Your task to perform on an android device: toggle improve location accuracy Image 0: 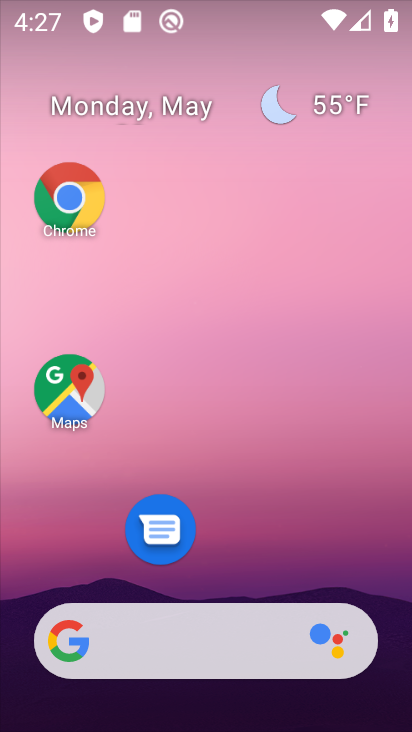
Step 0: drag from (196, 662) to (170, 15)
Your task to perform on an android device: toggle improve location accuracy Image 1: 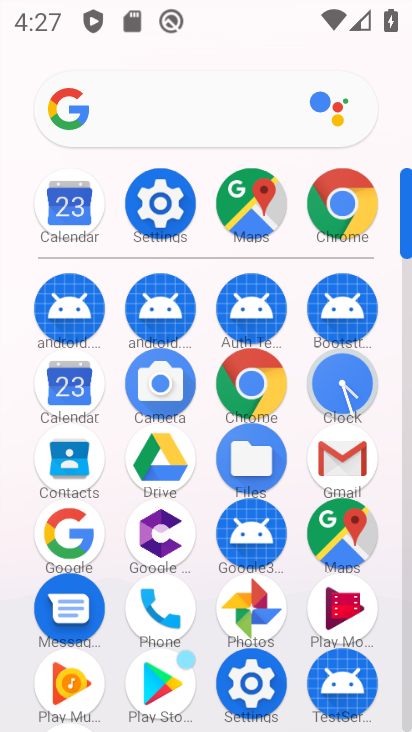
Step 1: click (163, 207)
Your task to perform on an android device: toggle improve location accuracy Image 2: 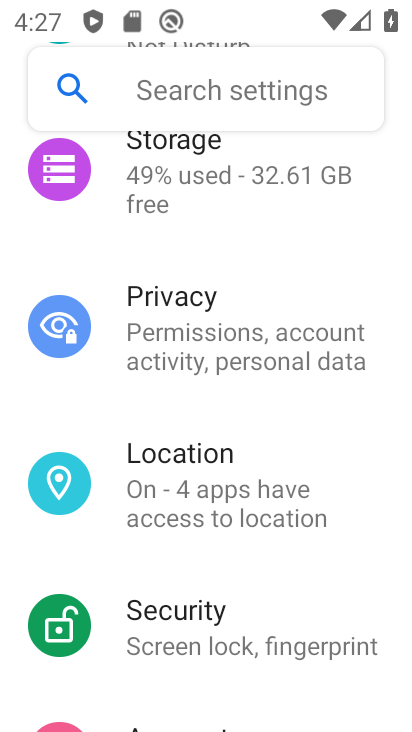
Step 2: click (249, 479)
Your task to perform on an android device: toggle improve location accuracy Image 3: 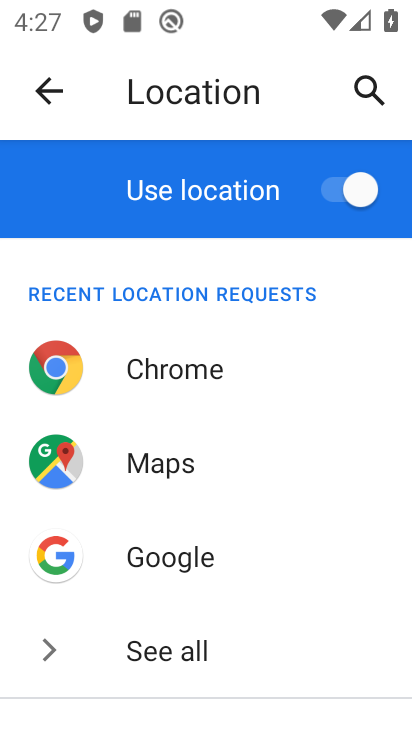
Step 3: drag from (218, 655) to (66, 92)
Your task to perform on an android device: toggle improve location accuracy Image 4: 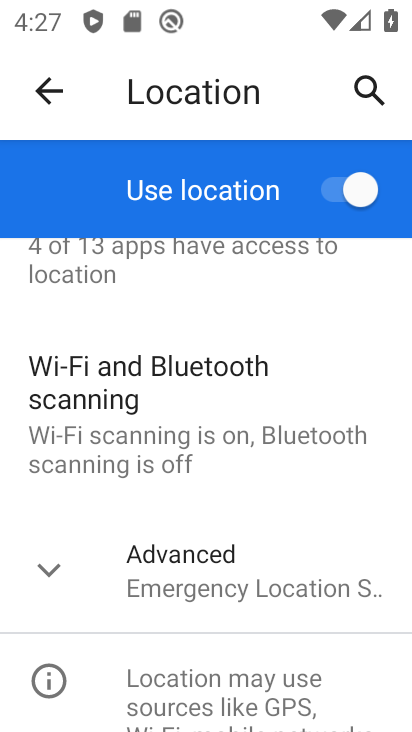
Step 4: click (193, 569)
Your task to perform on an android device: toggle improve location accuracy Image 5: 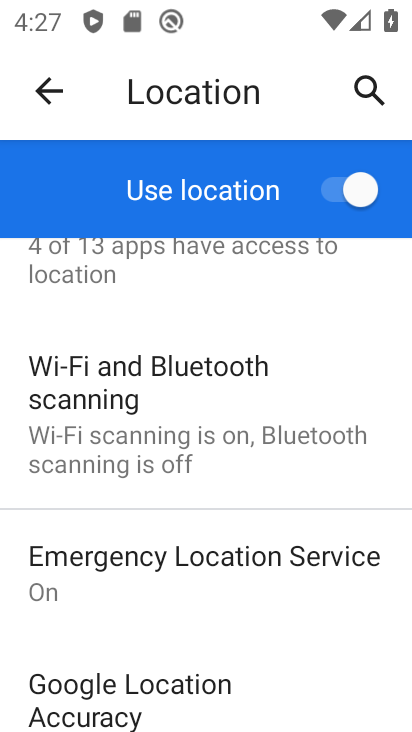
Step 5: drag from (183, 626) to (174, 258)
Your task to perform on an android device: toggle improve location accuracy Image 6: 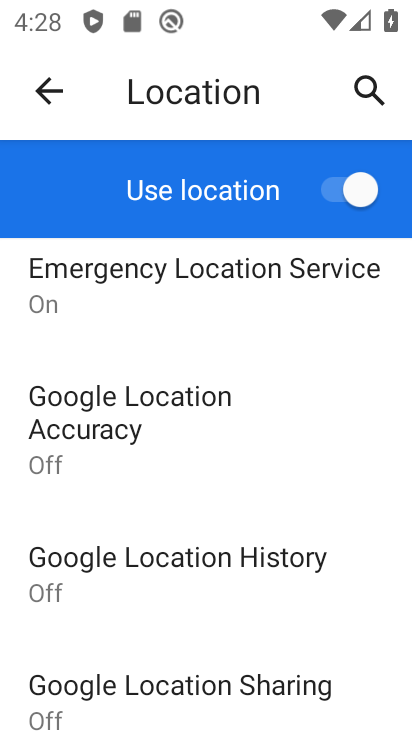
Step 6: click (173, 451)
Your task to perform on an android device: toggle improve location accuracy Image 7: 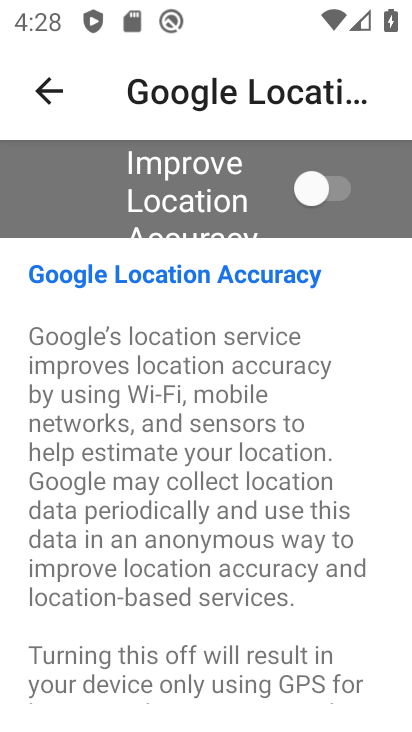
Step 7: click (344, 189)
Your task to perform on an android device: toggle improve location accuracy Image 8: 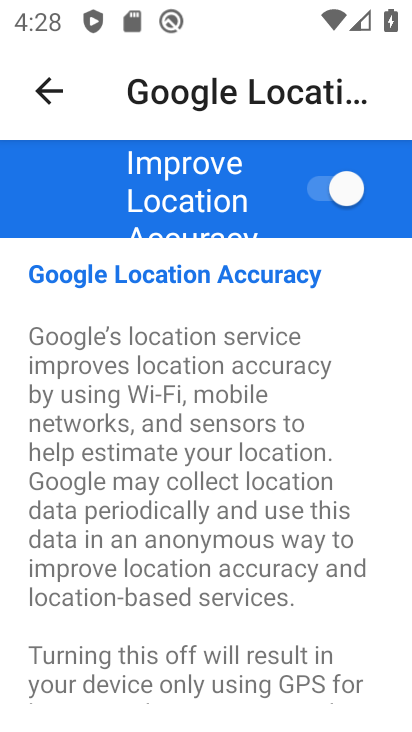
Step 8: task complete